Your task to perform on an android device: Show the shopping cart on walmart.com. Add "dell xps" to the cart on walmart.com Image 0: 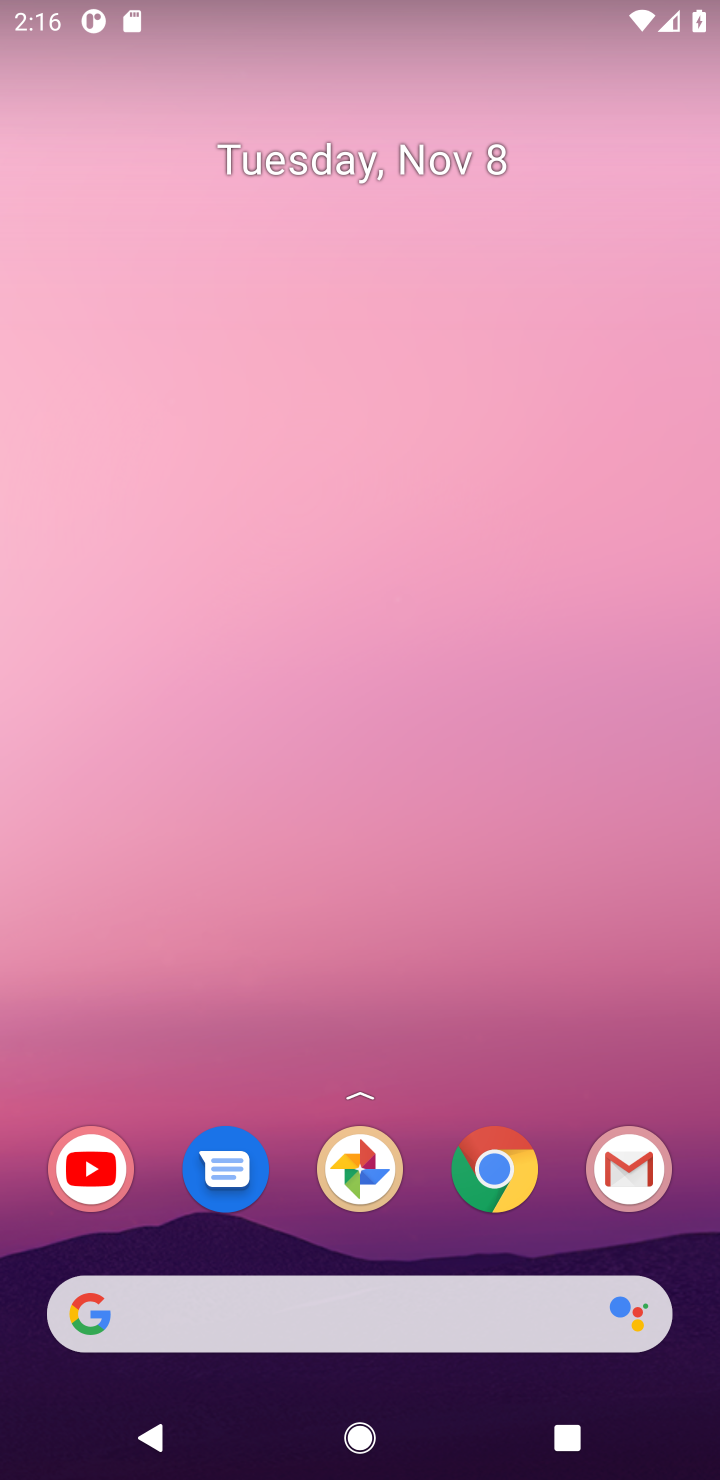
Step 0: click (483, 1188)
Your task to perform on an android device: Show the shopping cart on walmart.com. Add "dell xps" to the cart on walmart.com Image 1: 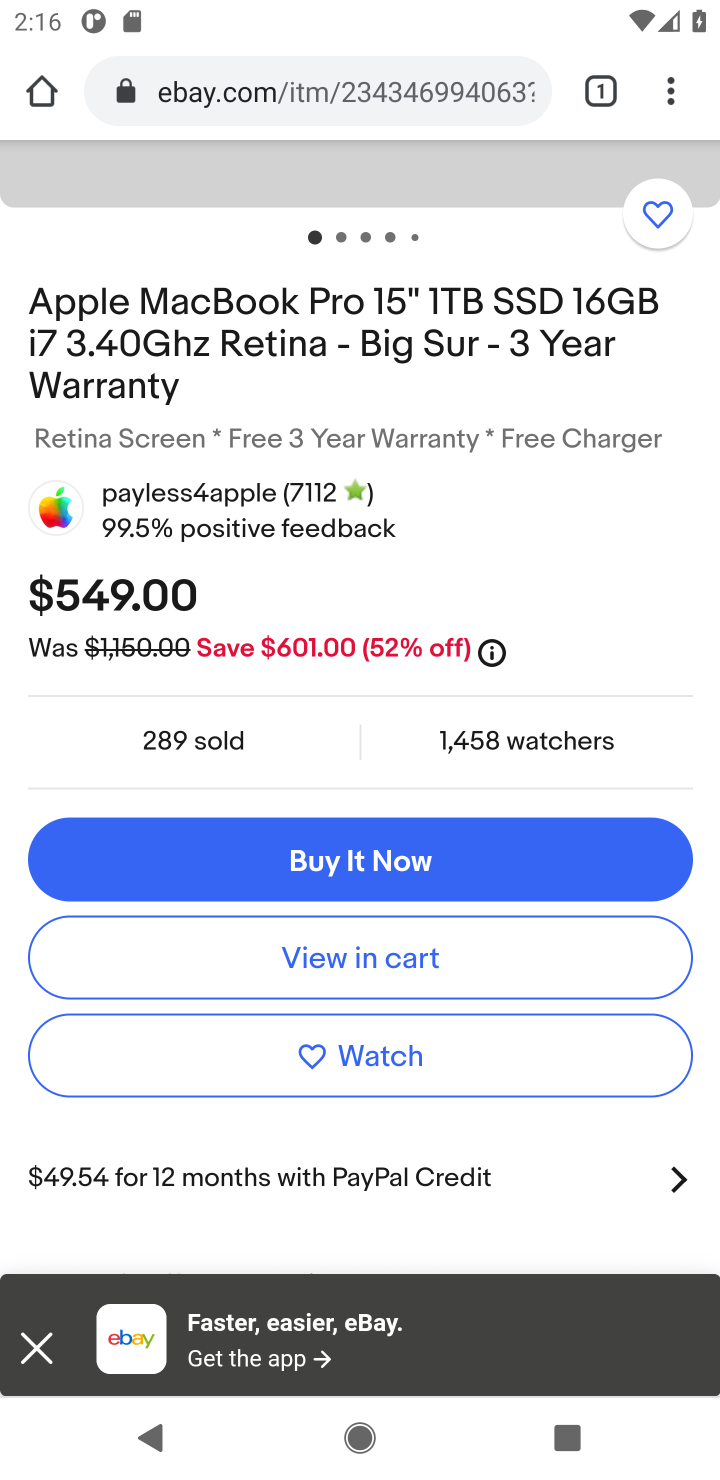
Step 1: click (299, 112)
Your task to perform on an android device: Show the shopping cart on walmart.com. Add "dell xps" to the cart on walmart.com Image 2: 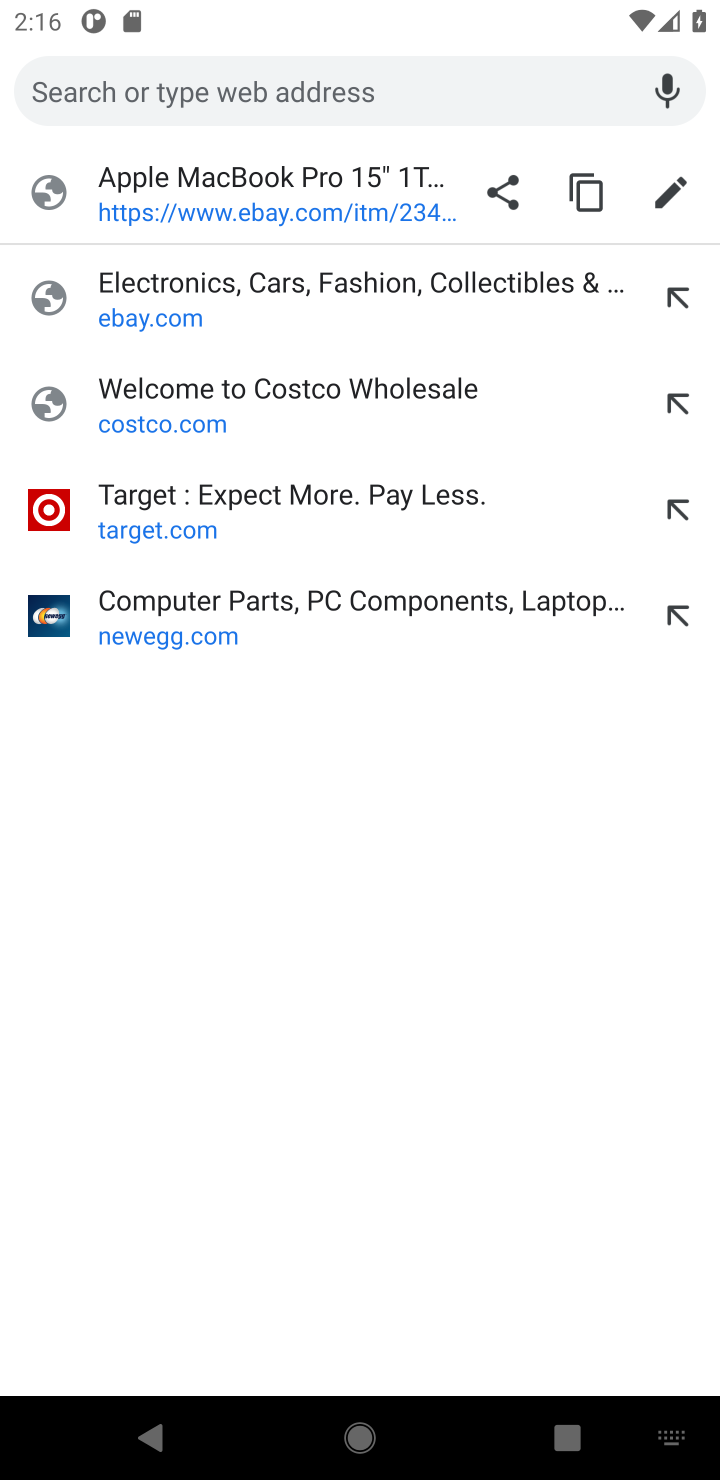
Step 2: type "walmart.com"
Your task to perform on an android device: Show the shopping cart on walmart.com. Add "dell xps" to the cart on walmart.com Image 3: 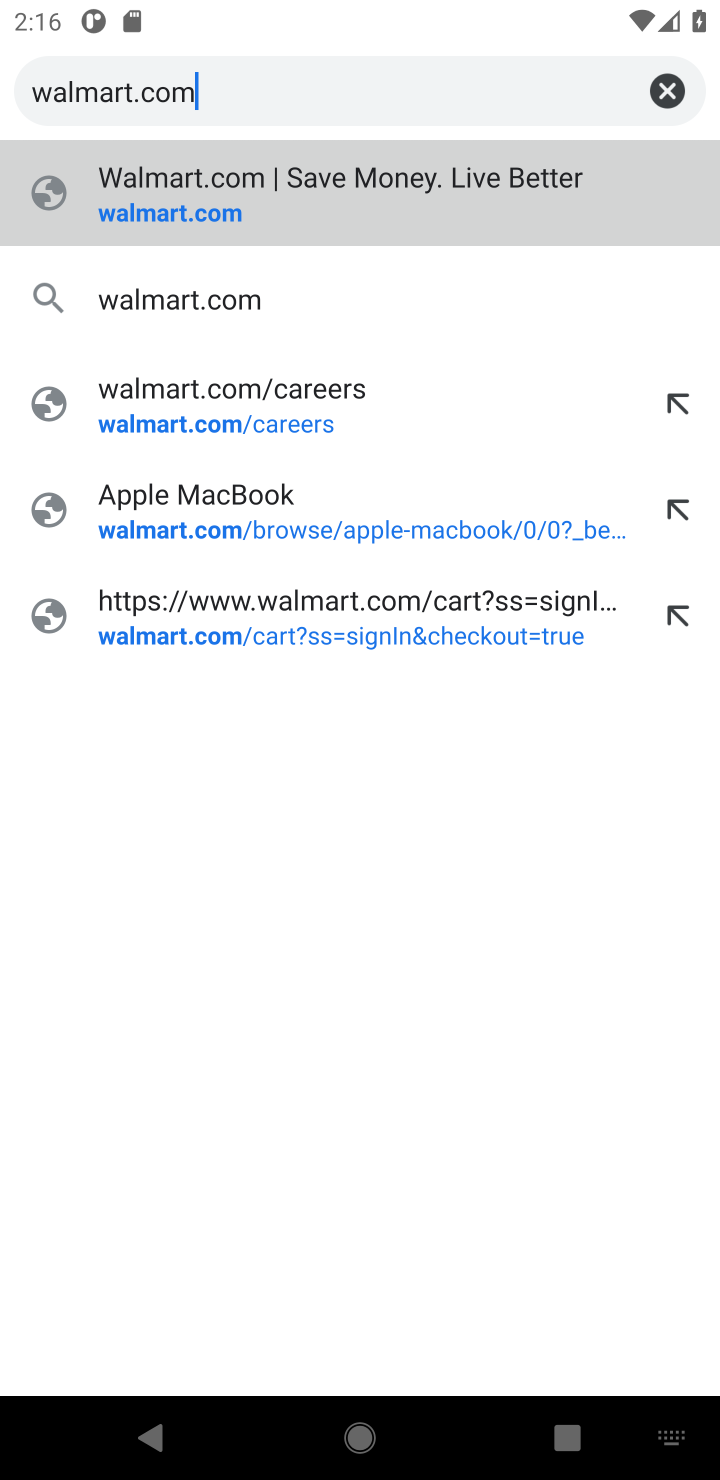
Step 3: click (376, 224)
Your task to perform on an android device: Show the shopping cart on walmart.com. Add "dell xps" to the cart on walmart.com Image 4: 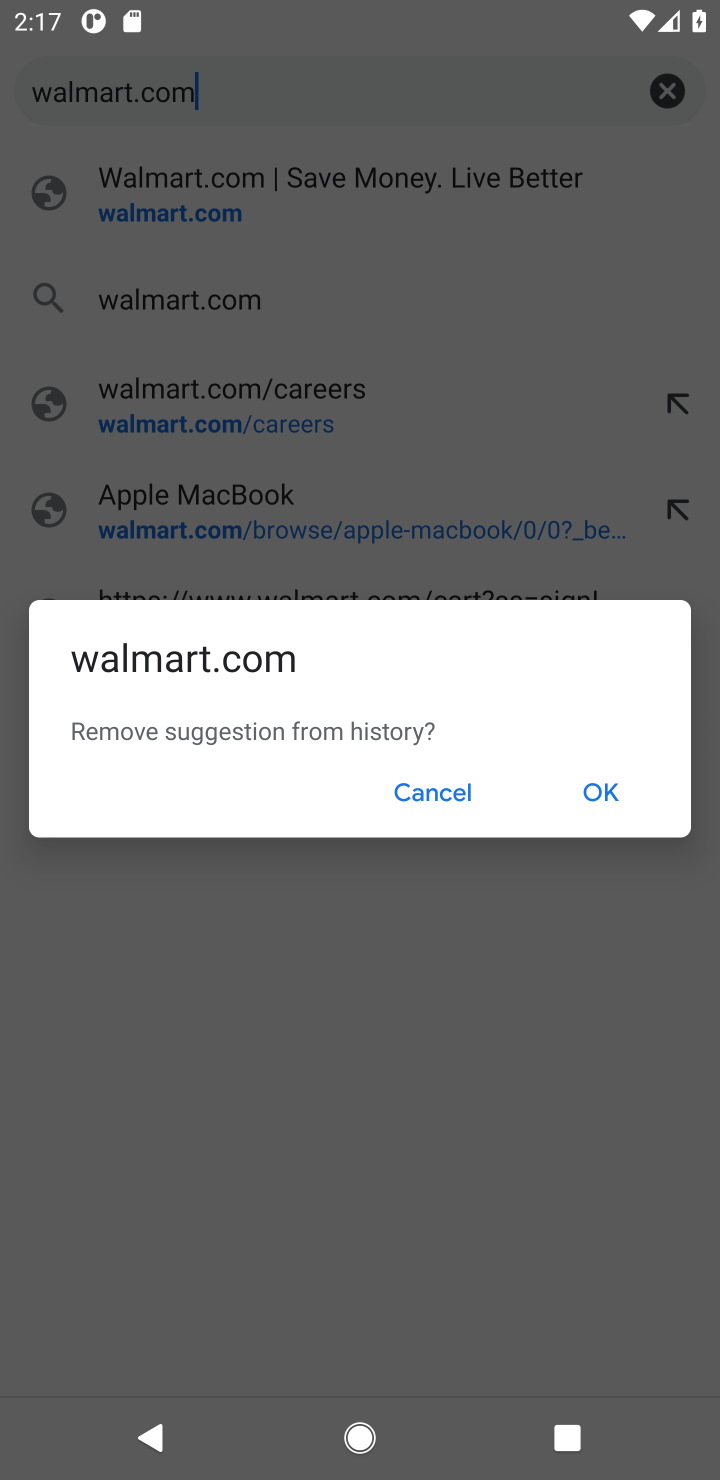
Step 4: click (616, 782)
Your task to perform on an android device: Show the shopping cart on walmart.com. Add "dell xps" to the cart on walmart.com Image 5: 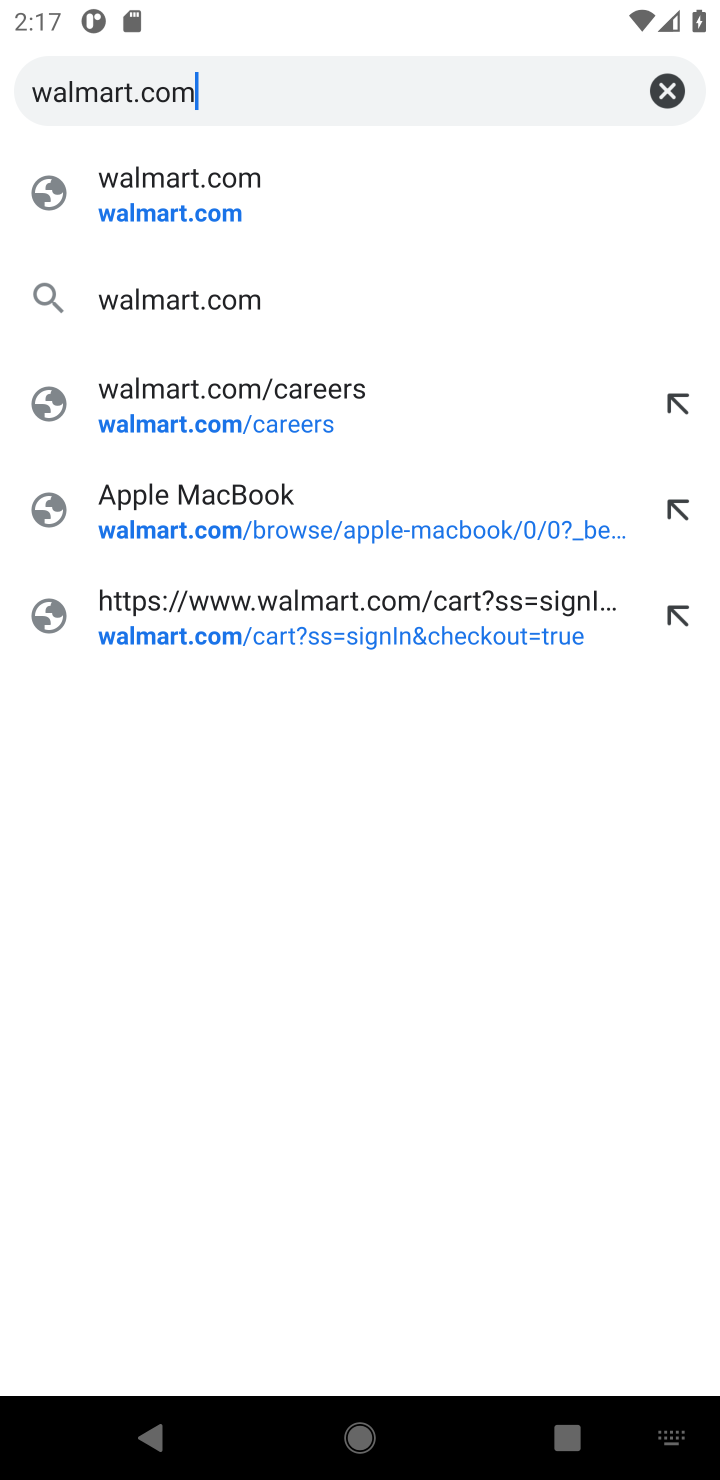
Step 5: click (203, 222)
Your task to perform on an android device: Show the shopping cart on walmart.com. Add "dell xps" to the cart on walmart.com Image 6: 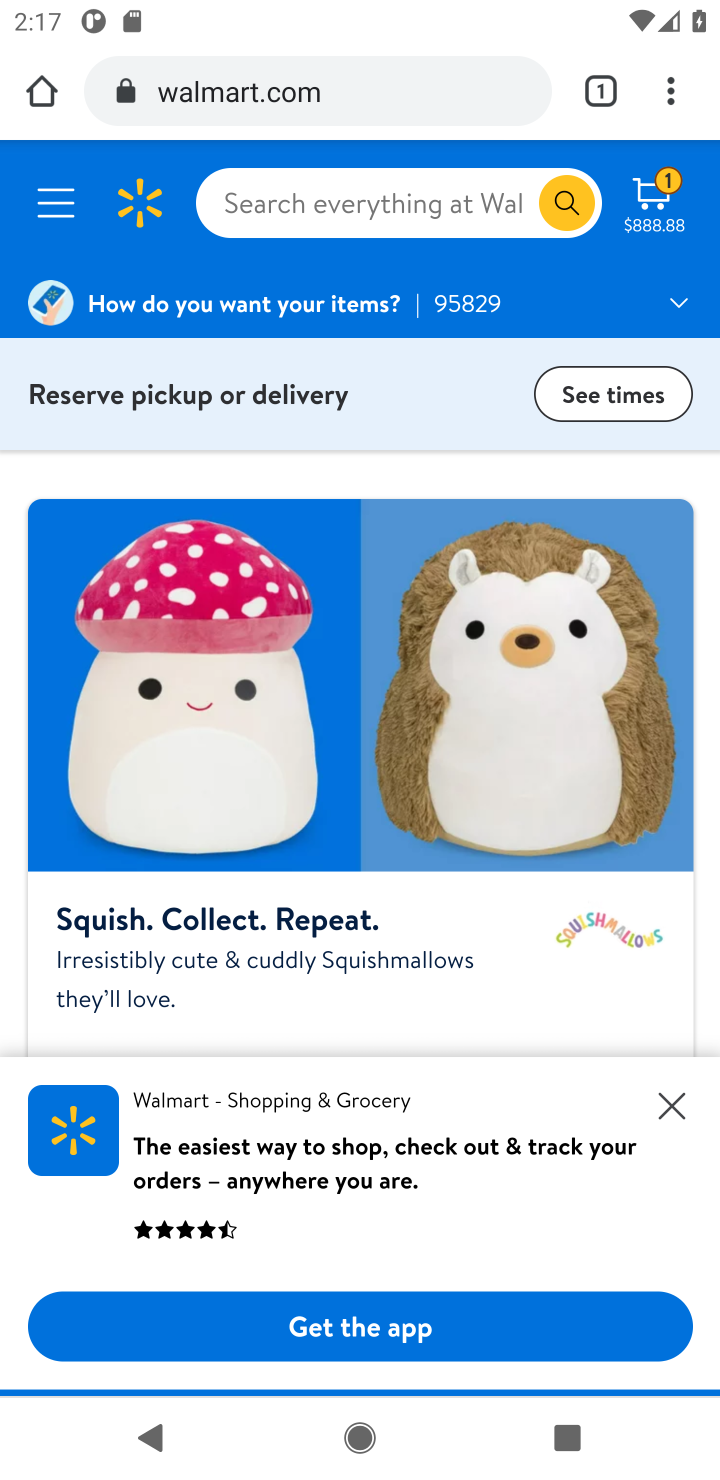
Step 6: click (360, 216)
Your task to perform on an android device: Show the shopping cart on walmart.com. Add "dell xps" to the cart on walmart.com Image 7: 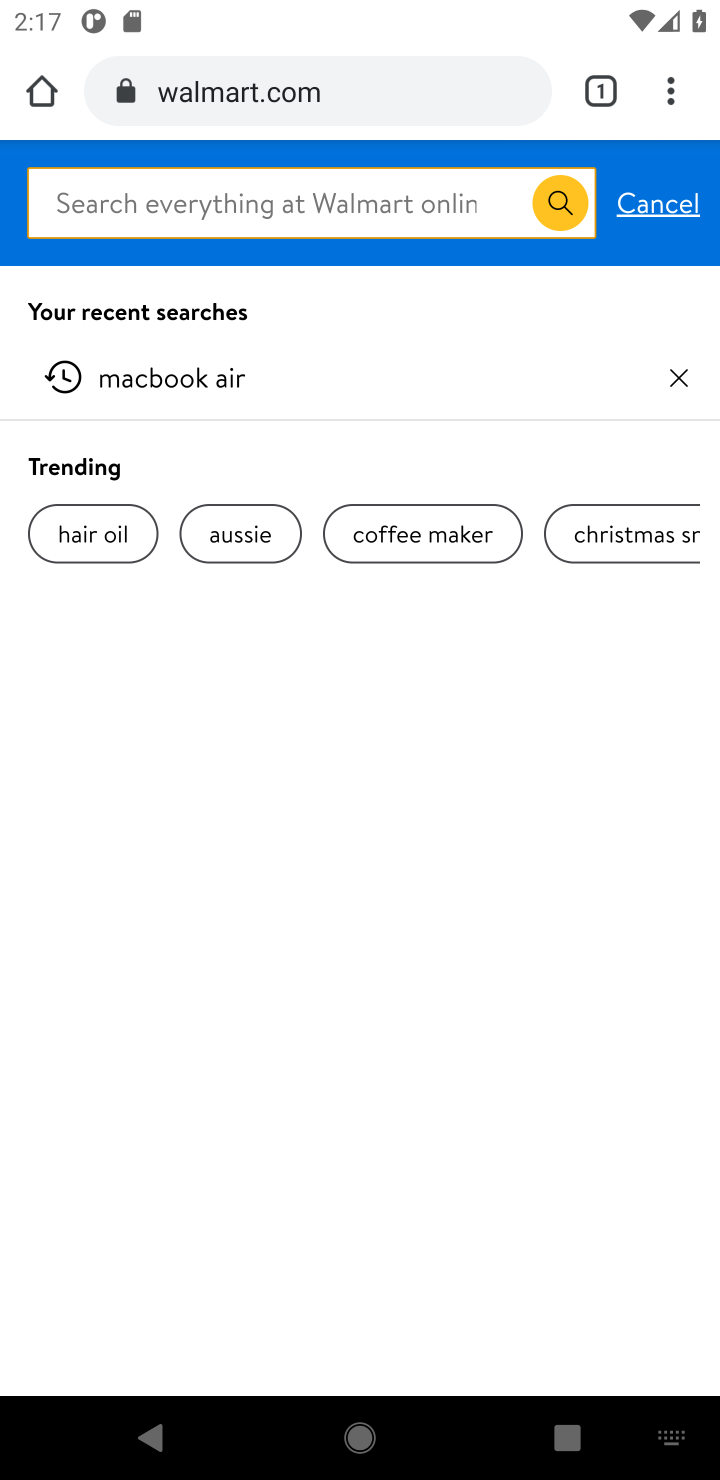
Step 7: type "dell xps"
Your task to perform on an android device: Show the shopping cart on walmart.com. Add "dell xps" to the cart on walmart.com Image 8: 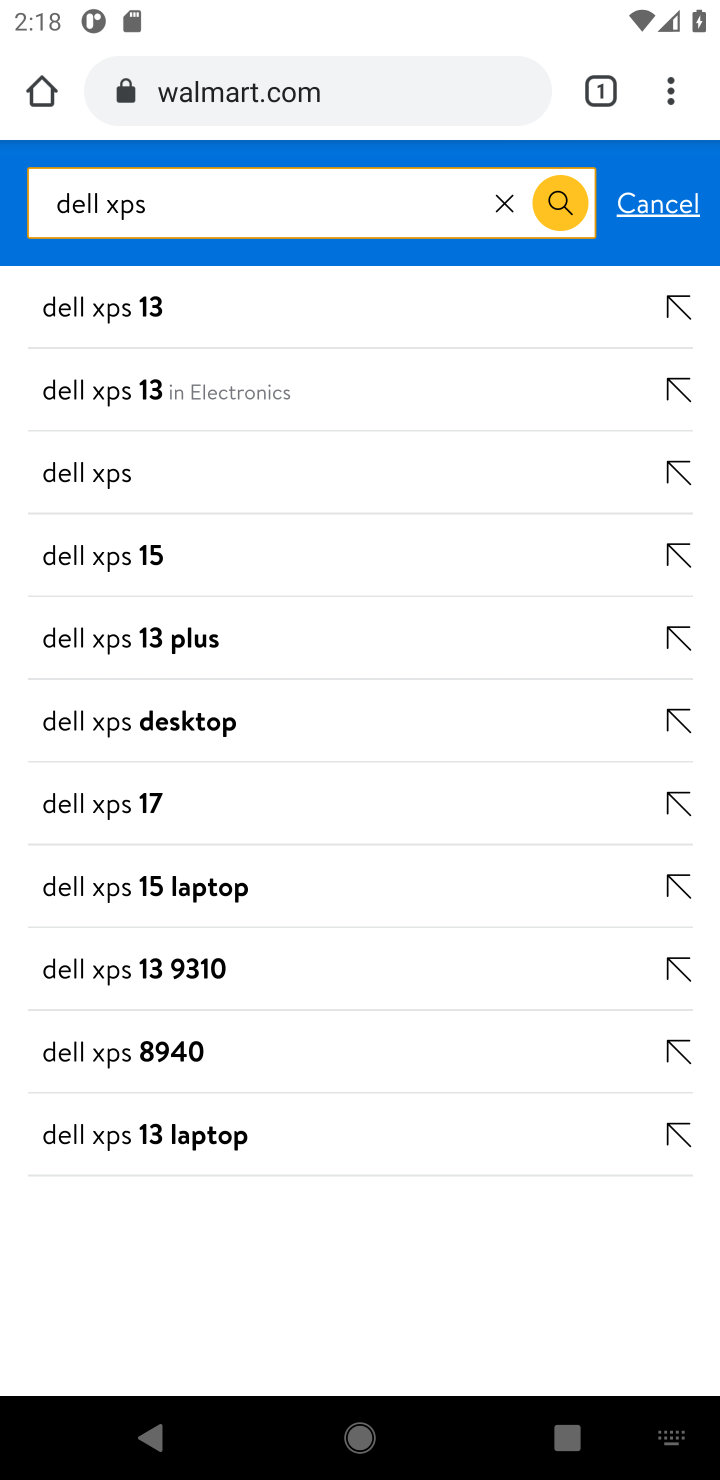
Step 8: press enter
Your task to perform on an android device: Show the shopping cart on walmart.com. Add "dell xps" to the cart on walmart.com Image 9: 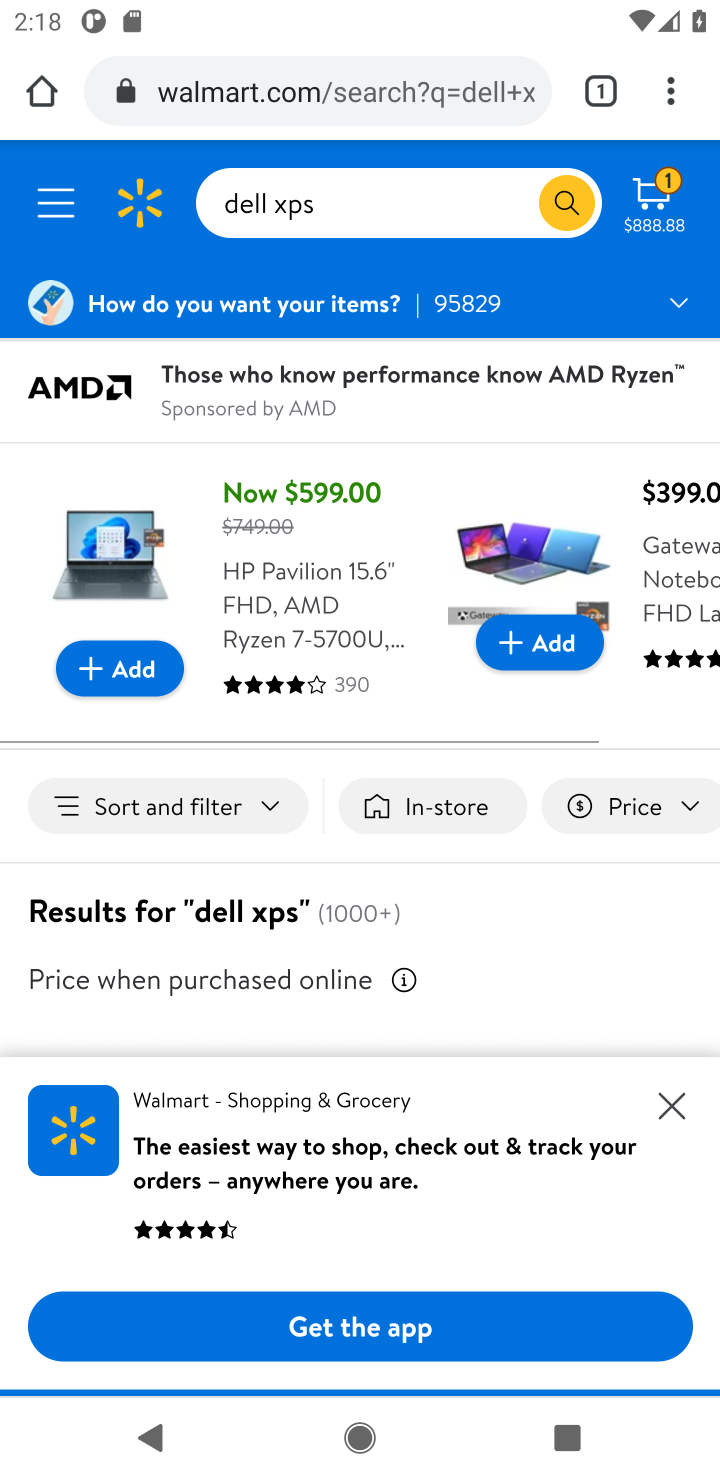
Step 9: drag from (483, 1041) to (295, 324)
Your task to perform on an android device: Show the shopping cart on walmart.com. Add "dell xps" to the cart on walmart.com Image 10: 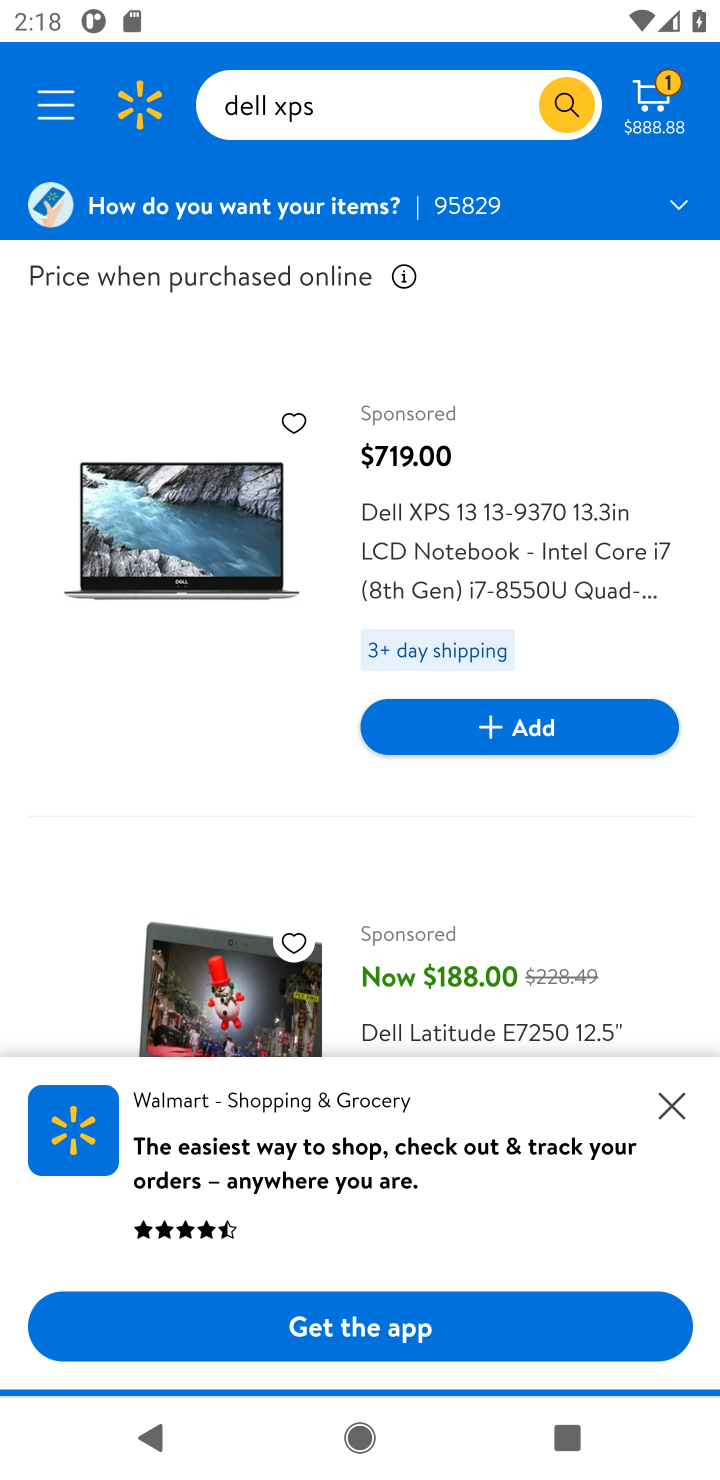
Step 10: click (522, 733)
Your task to perform on an android device: Show the shopping cart on walmart.com. Add "dell xps" to the cart on walmart.com Image 11: 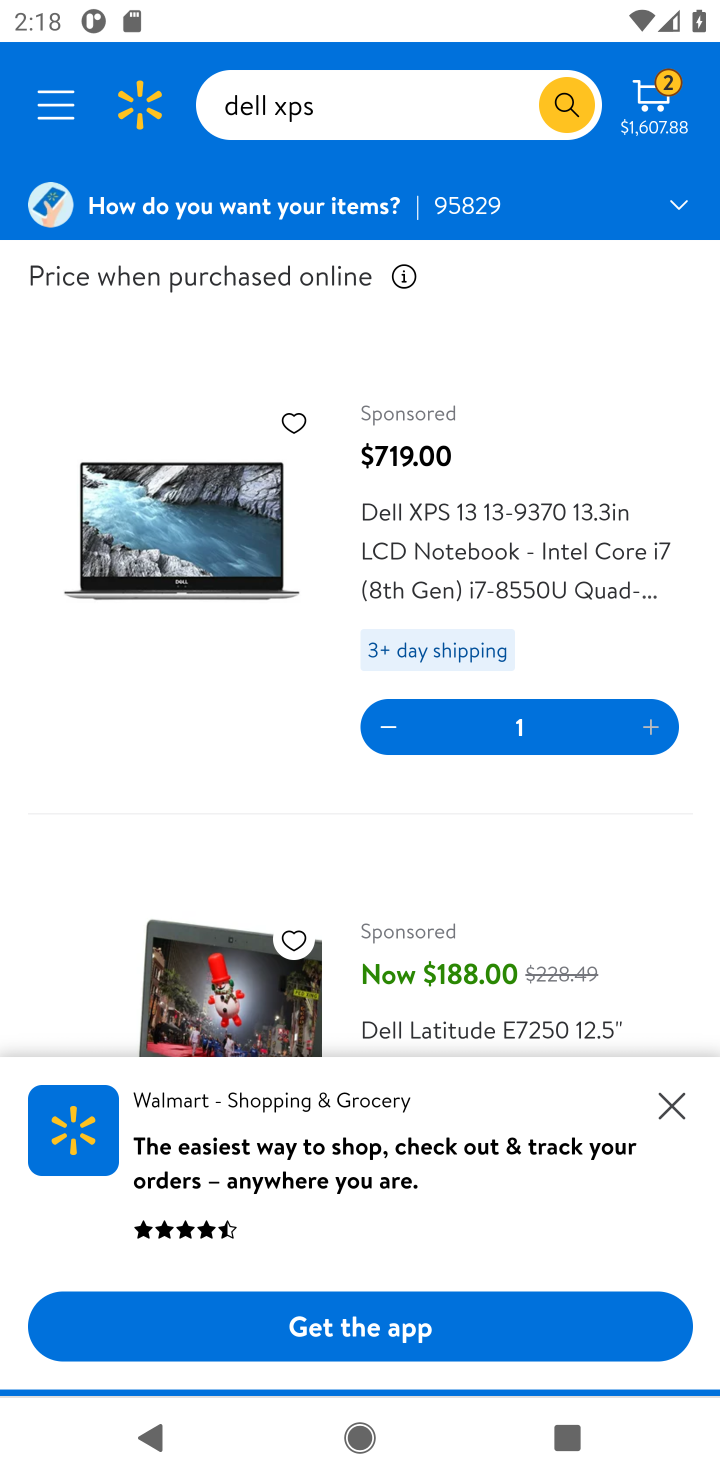
Step 11: click (241, 495)
Your task to perform on an android device: Show the shopping cart on walmart.com. Add "dell xps" to the cart on walmart.com Image 12: 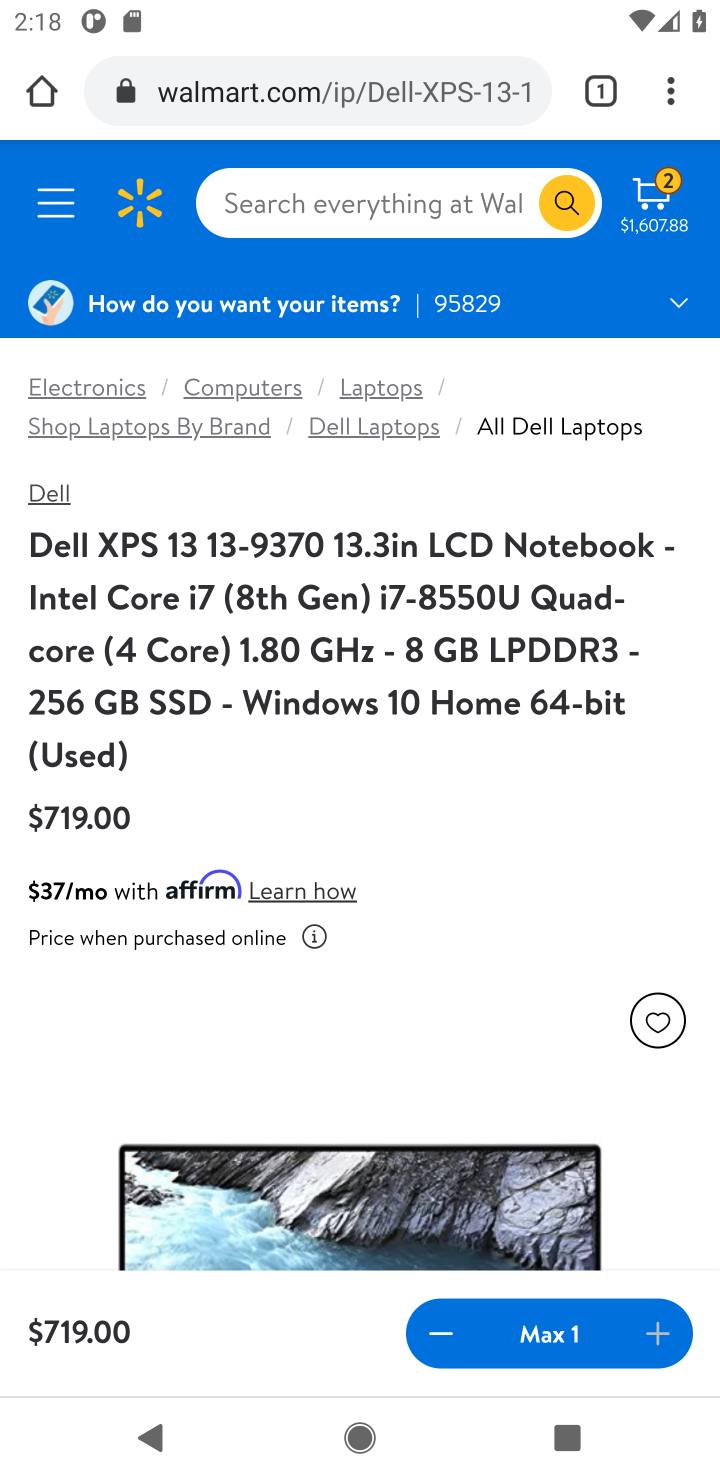
Step 12: drag from (417, 1153) to (279, 86)
Your task to perform on an android device: Show the shopping cart on walmart.com. Add "dell xps" to the cart on walmart.com Image 13: 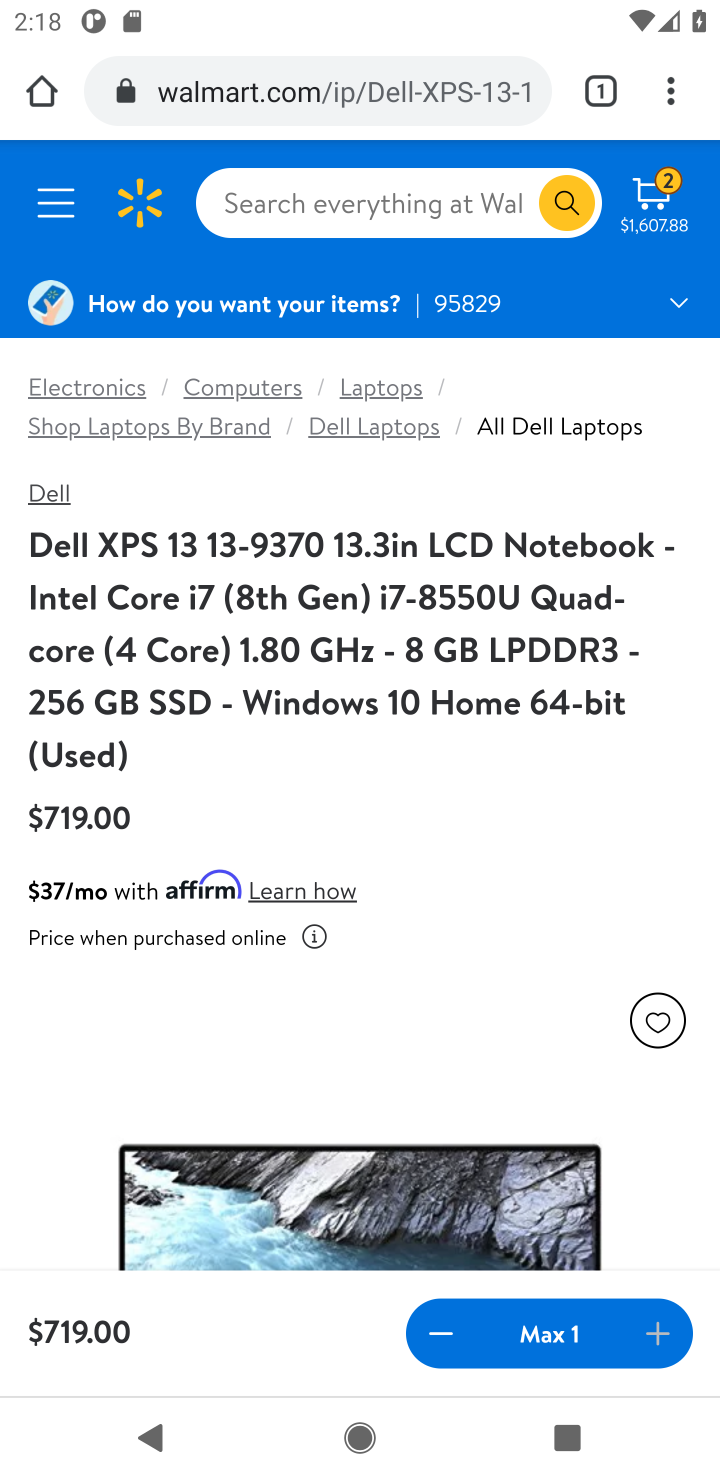
Step 13: drag from (280, 1039) to (73, 43)
Your task to perform on an android device: Show the shopping cart on walmart.com. Add "dell xps" to the cart on walmart.com Image 14: 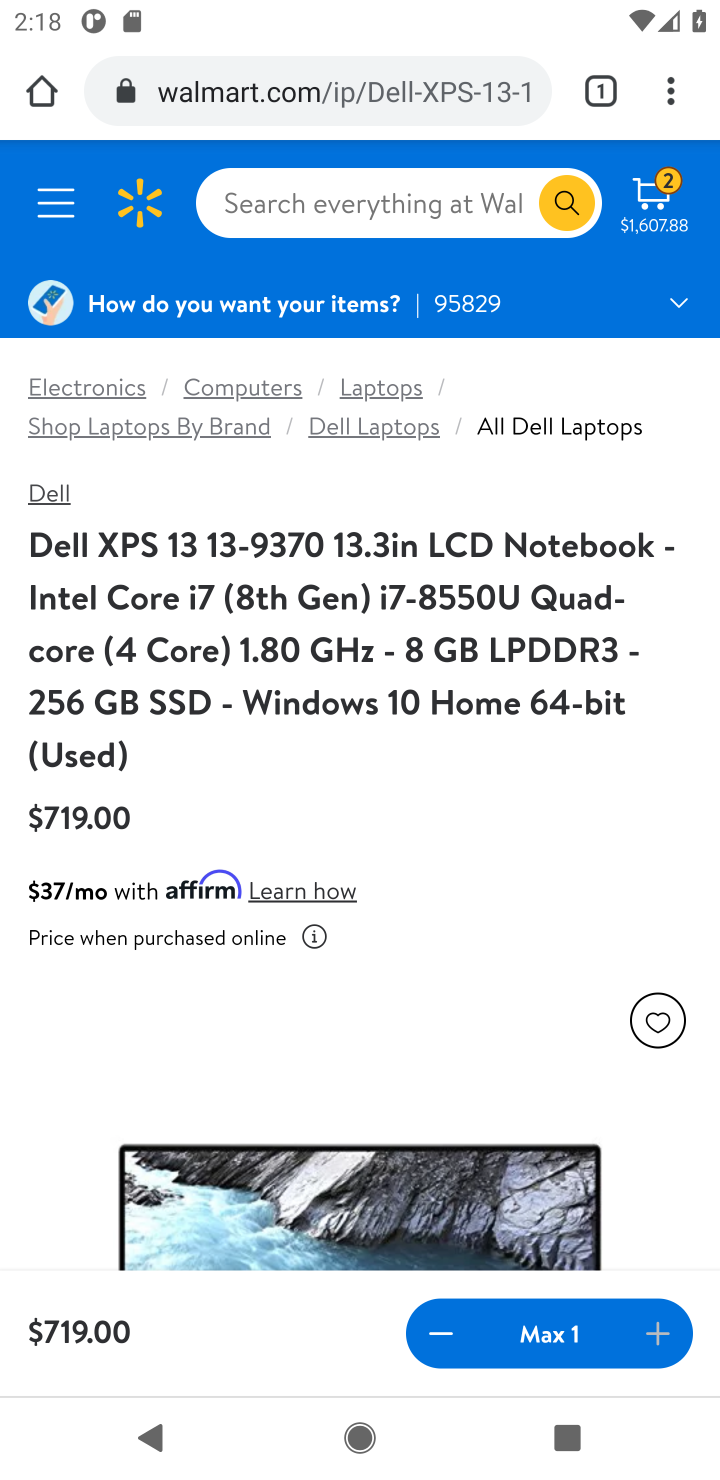
Step 14: drag from (529, 1014) to (452, 34)
Your task to perform on an android device: Show the shopping cart on walmart.com. Add "dell xps" to the cart on walmart.com Image 15: 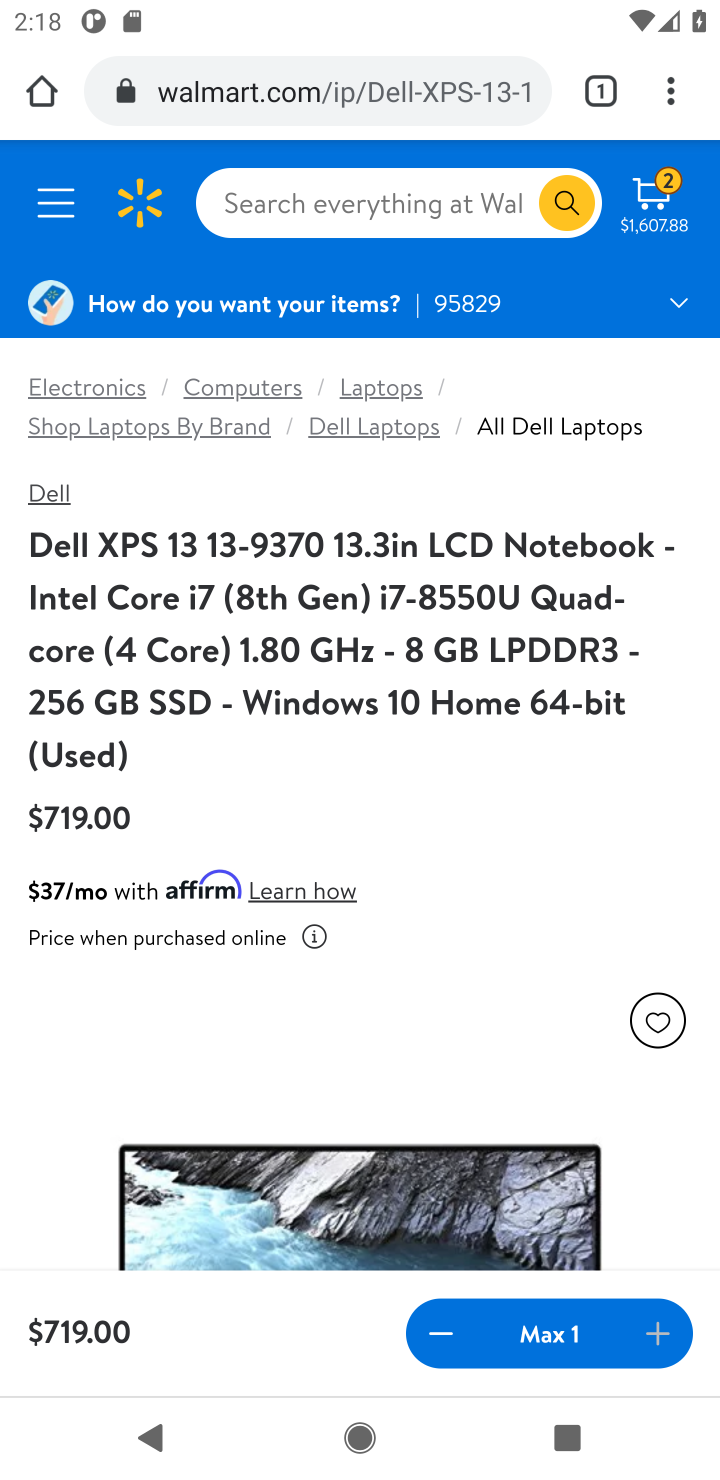
Step 15: drag from (476, 1019) to (259, 421)
Your task to perform on an android device: Show the shopping cart on walmart.com. Add "dell xps" to the cart on walmart.com Image 16: 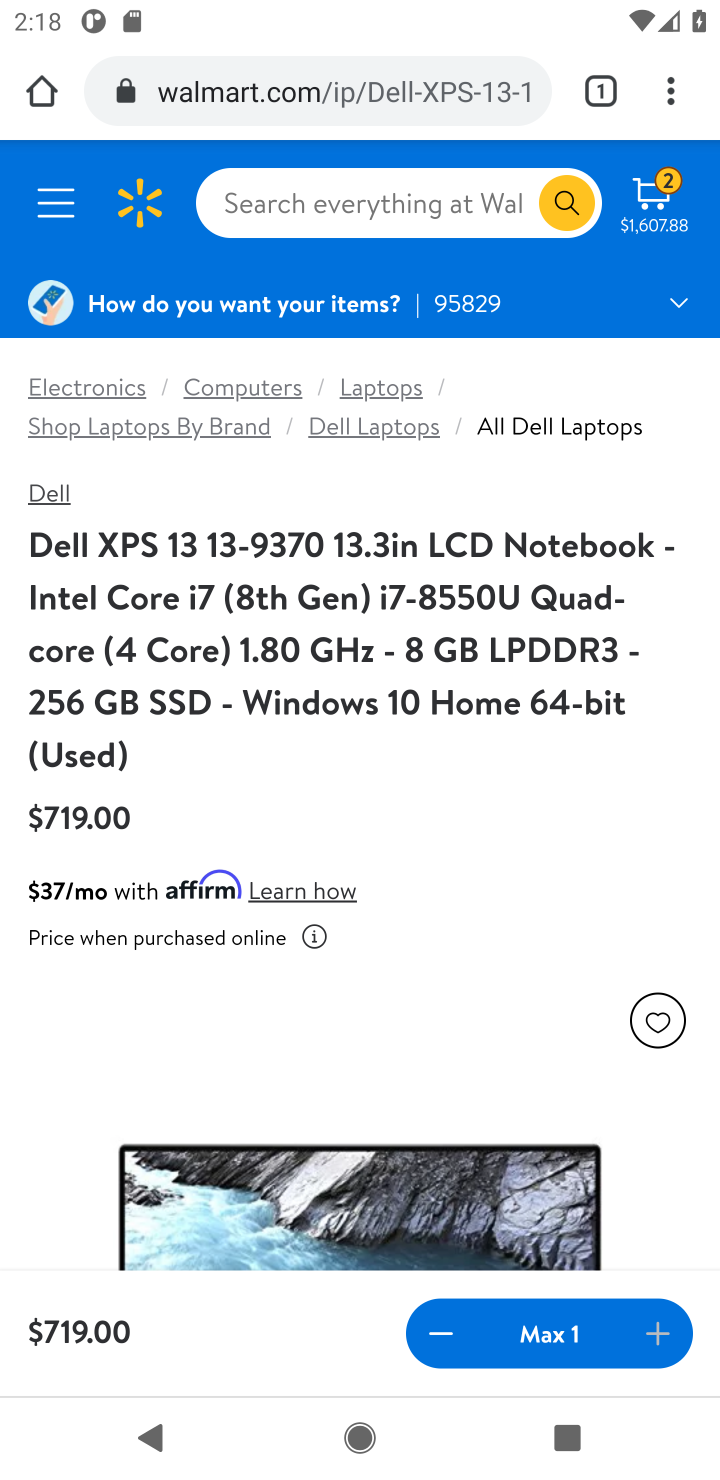
Step 16: drag from (320, 1121) to (175, 324)
Your task to perform on an android device: Show the shopping cart on walmart.com. Add "dell xps" to the cart on walmart.com Image 17: 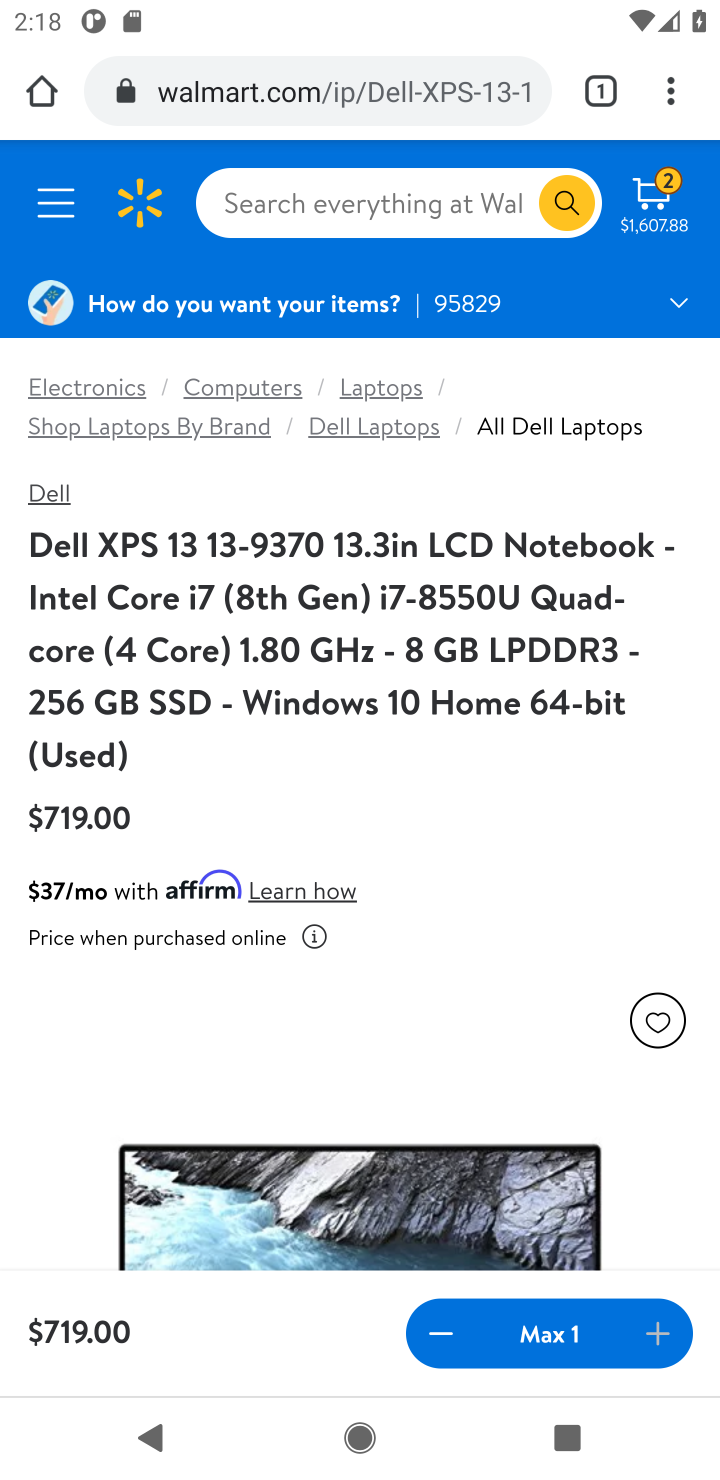
Step 17: drag from (258, 992) to (143, 160)
Your task to perform on an android device: Show the shopping cart on walmart.com. Add "dell xps" to the cart on walmart.com Image 18: 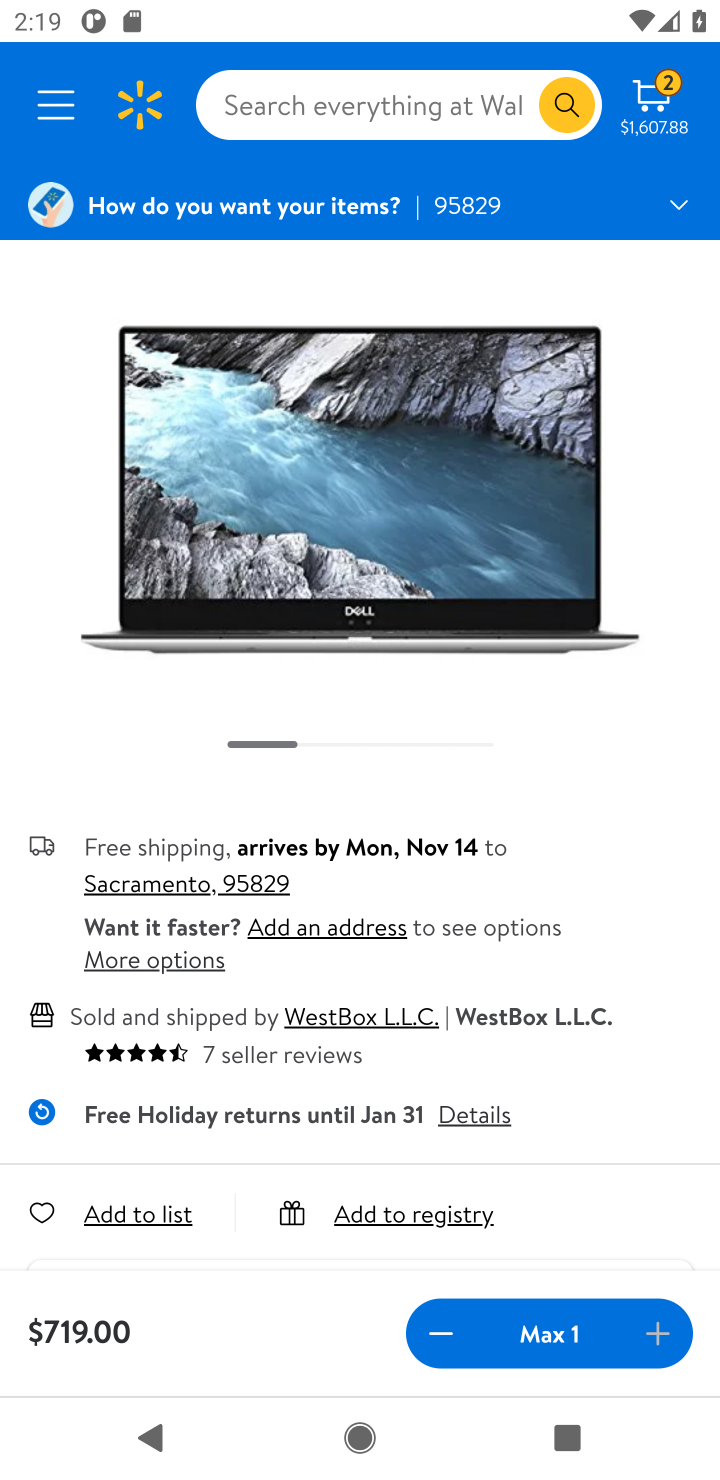
Step 18: drag from (340, 1134) to (252, 587)
Your task to perform on an android device: Show the shopping cart on walmart.com. Add "dell xps" to the cart on walmart.com Image 19: 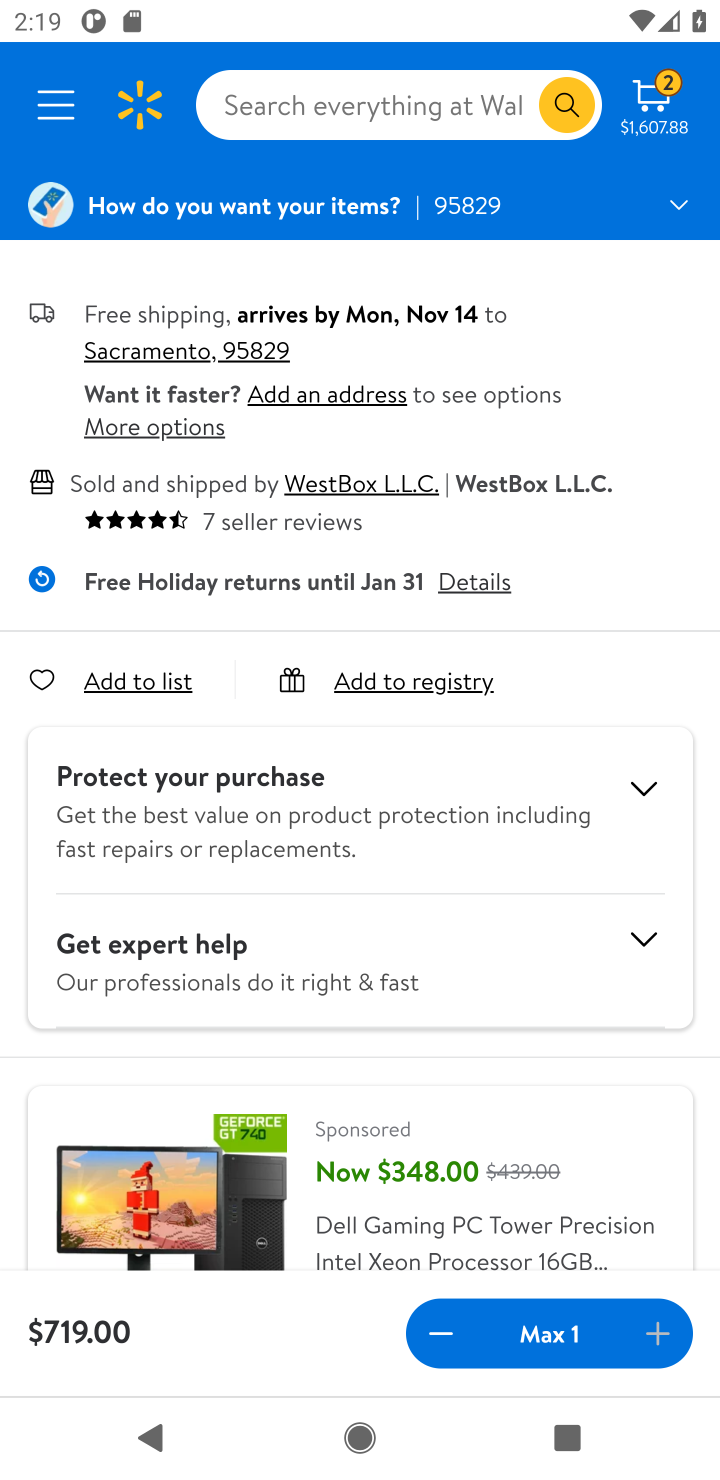
Step 19: click (666, 96)
Your task to perform on an android device: Show the shopping cart on walmart.com. Add "dell xps" to the cart on walmart.com Image 20: 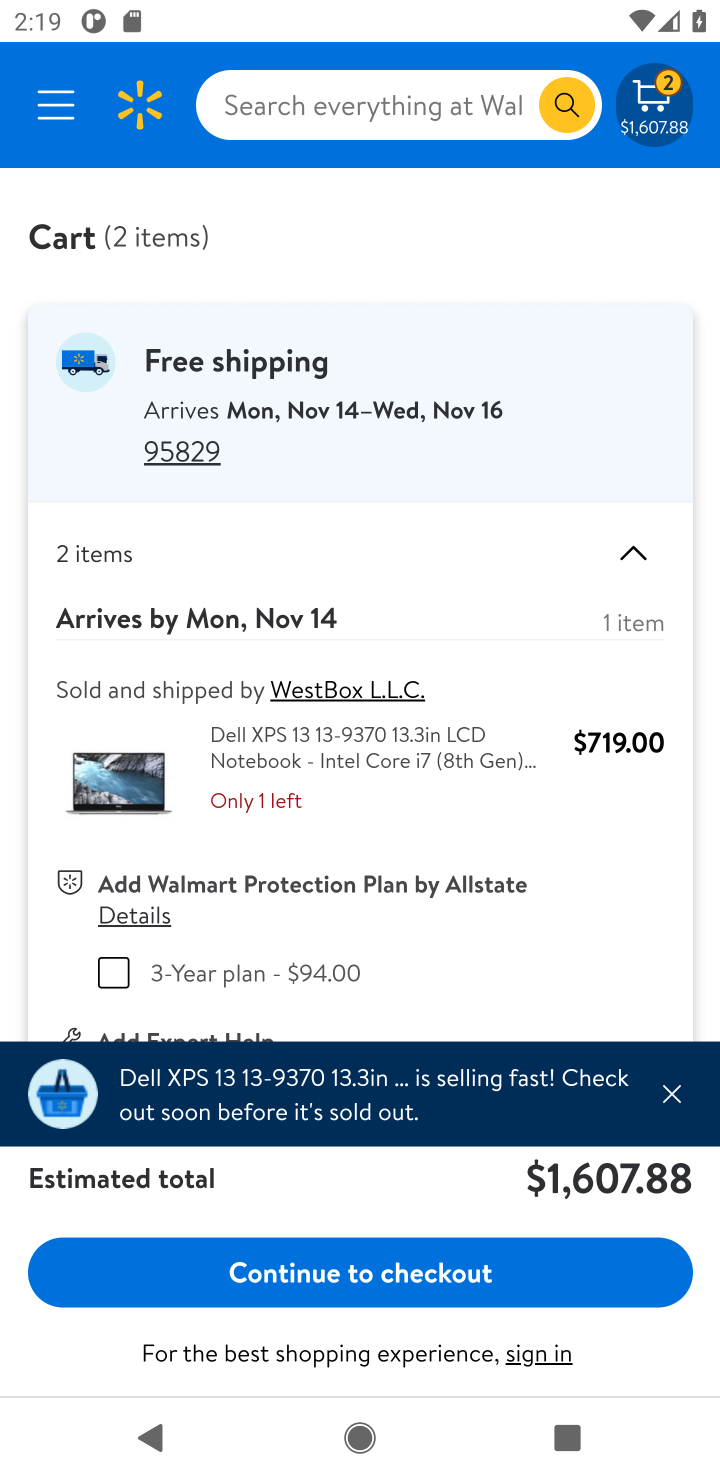
Step 20: task complete